Your task to perform on an android device: See recent photos Image 0: 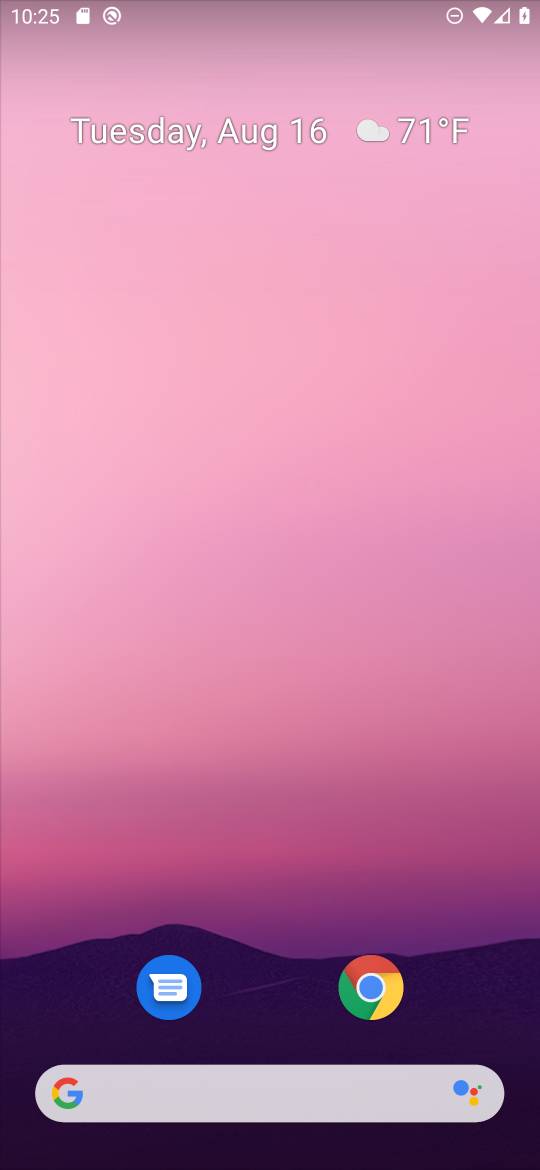
Step 0: drag from (18, 1107) to (408, 457)
Your task to perform on an android device: See recent photos Image 1: 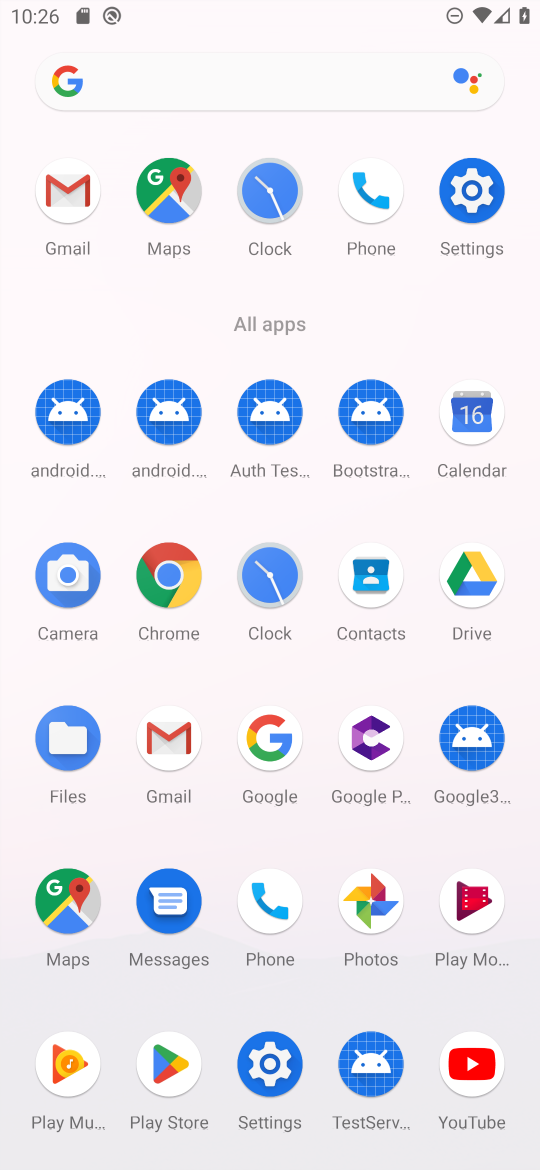
Step 1: click (382, 910)
Your task to perform on an android device: See recent photos Image 2: 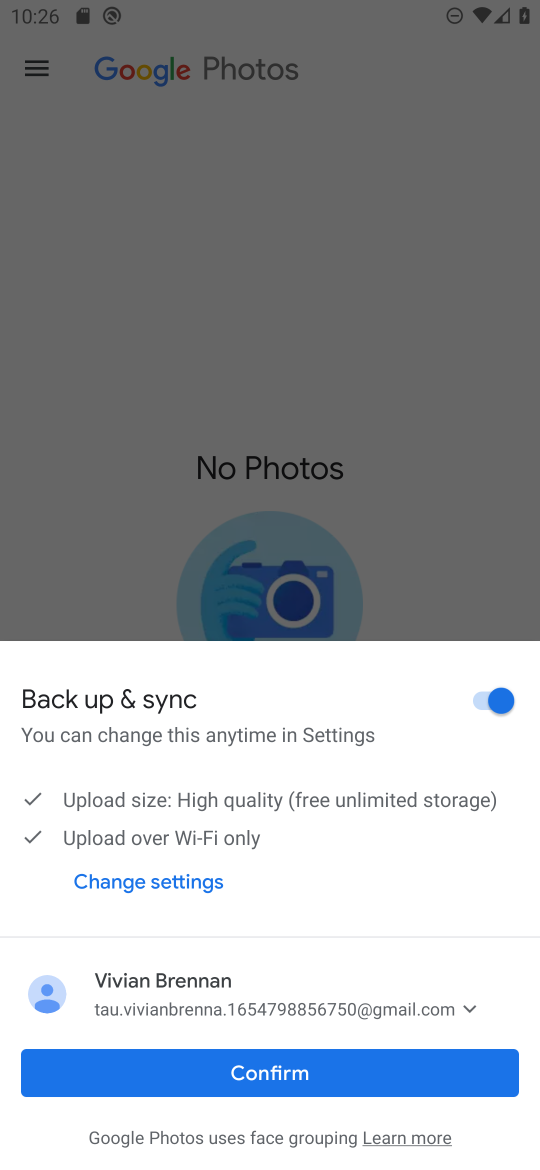
Step 2: click (243, 1078)
Your task to perform on an android device: See recent photos Image 3: 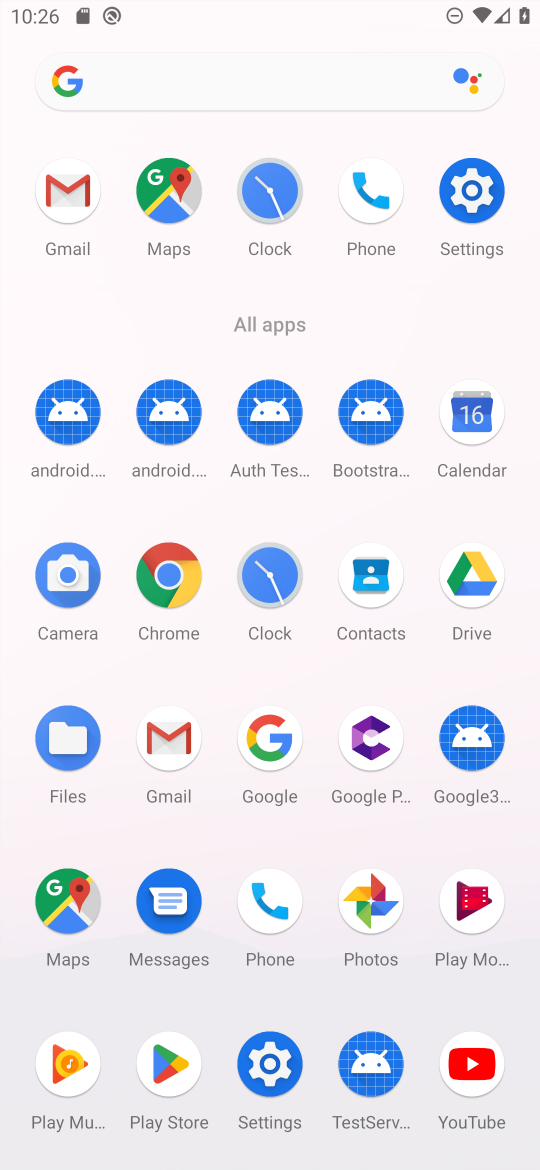
Step 3: click (363, 886)
Your task to perform on an android device: See recent photos Image 4: 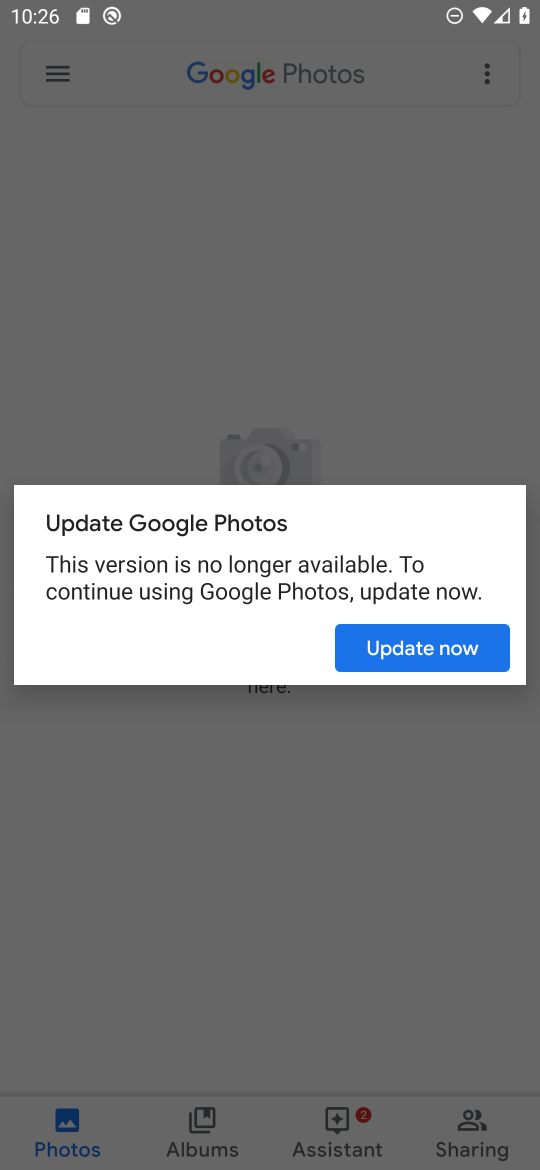
Step 4: task complete